Your task to perform on an android device: Go to internet settings Image 0: 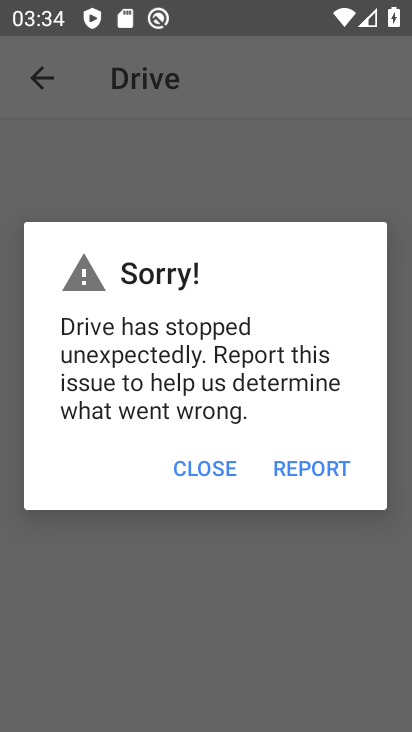
Step 0: press home button
Your task to perform on an android device: Go to internet settings Image 1: 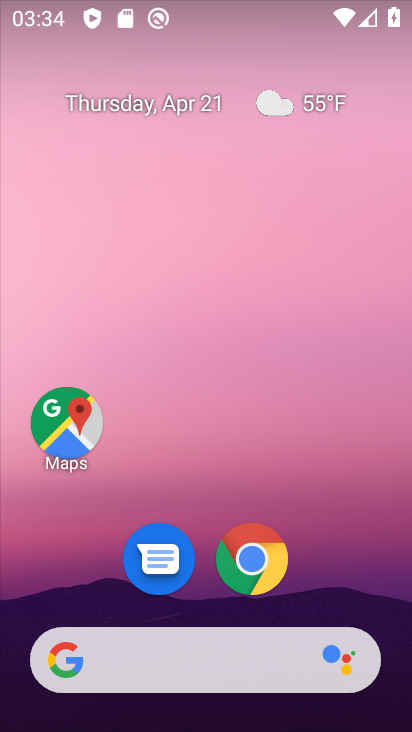
Step 1: drag from (337, 489) to (366, 105)
Your task to perform on an android device: Go to internet settings Image 2: 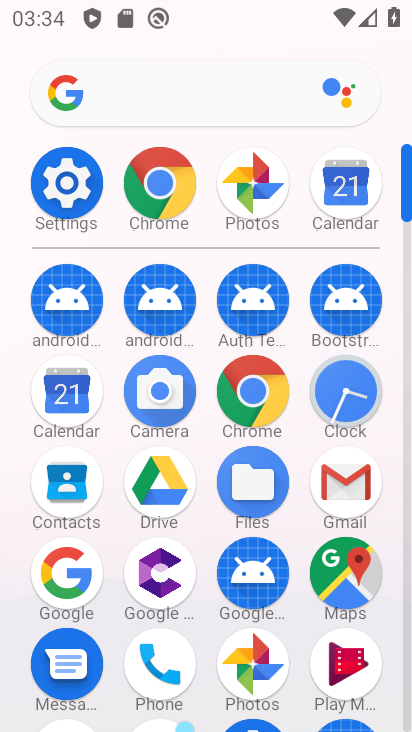
Step 2: click (68, 170)
Your task to perform on an android device: Go to internet settings Image 3: 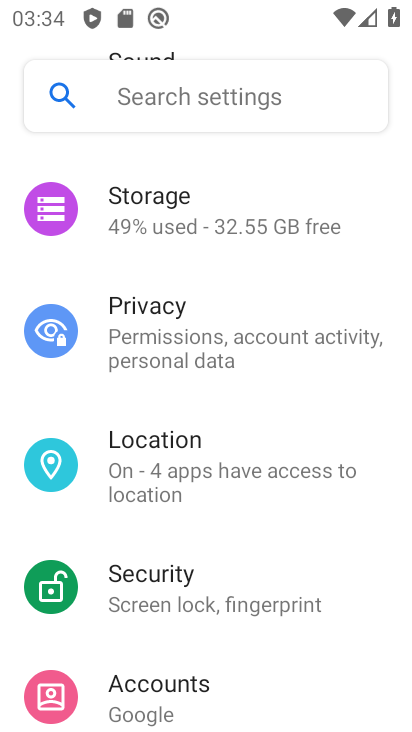
Step 3: drag from (272, 143) to (270, 627)
Your task to perform on an android device: Go to internet settings Image 4: 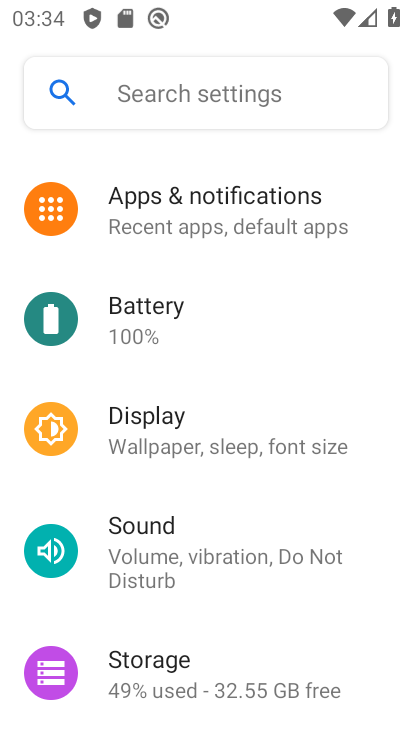
Step 4: drag from (262, 188) to (264, 624)
Your task to perform on an android device: Go to internet settings Image 5: 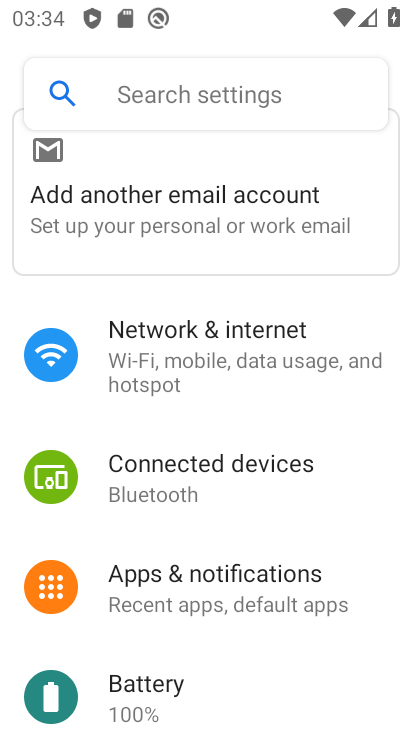
Step 5: click (243, 355)
Your task to perform on an android device: Go to internet settings Image 6: 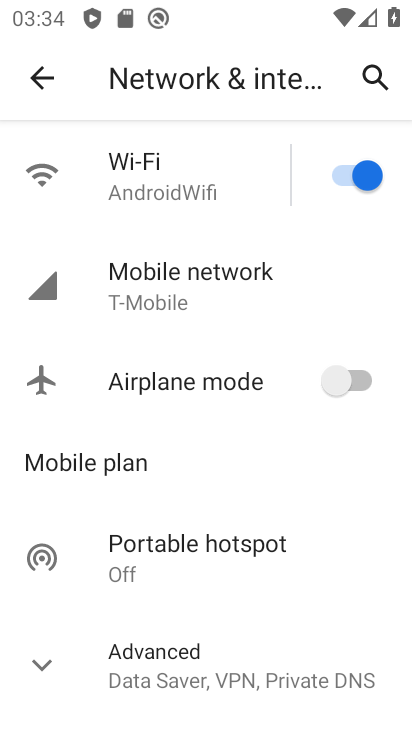
Step 6: task complete